Your task to perform on an android device: turn vacation reply on in the gmail app Image 0: 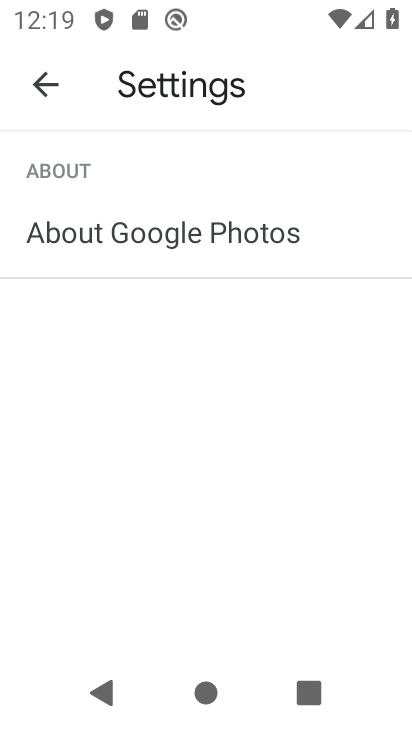
Step 0: press home button
Your task to perform on an android device: turn vacation reply on in the gmail app Image 1: 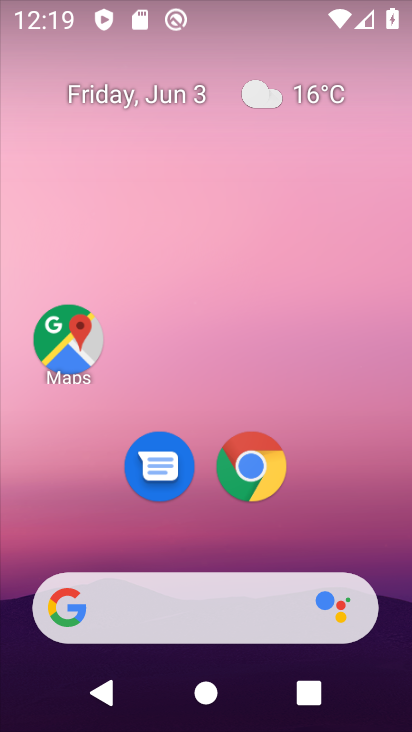
Step 1: drag from (88, 576) to (231, 153)
Your task to perform on an android device: turn vacation reply on in the gmail app Image 2: 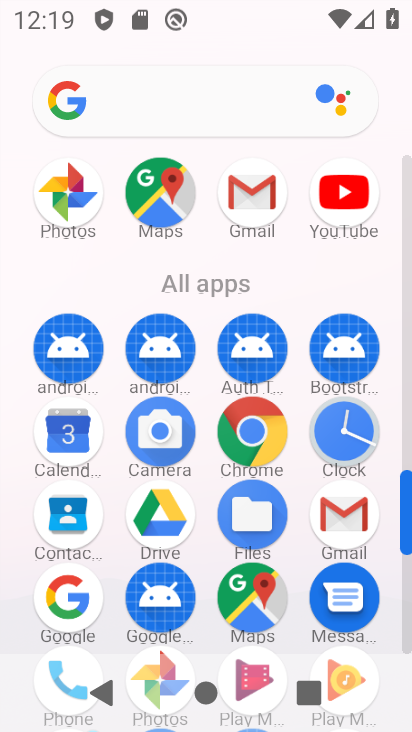
Step 2: click (349, 527)
Your task to perform on an android device: turn vacation reply on in the gmail app Image 3: 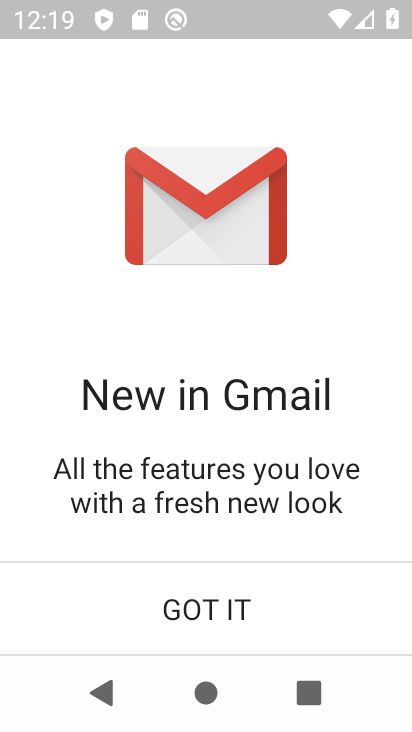
Step 3: click (183, 645)
Your task to perform on an android device: turn vacation reply on in the gmail app Image 4: 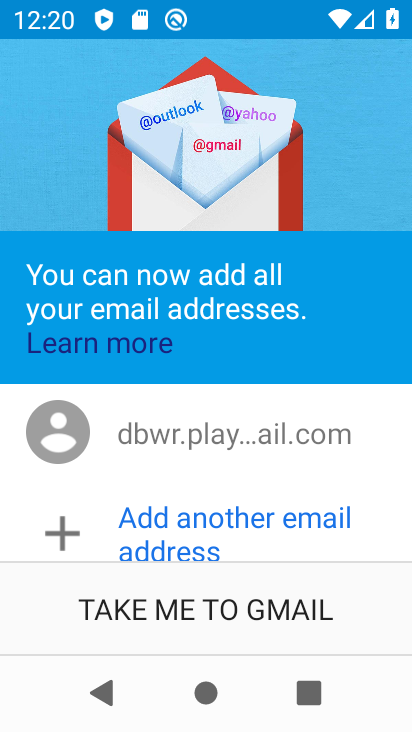
Step 4: click (208, 613)
Your task to perform on an android device: turn vacation reply on in the gmail app Image 5: 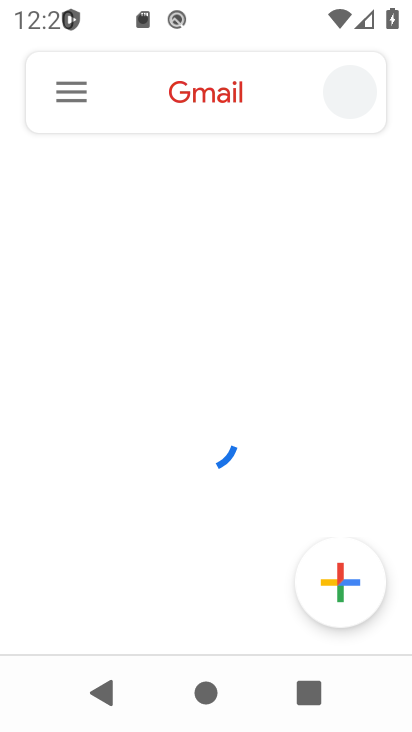
Step 5: click (57, 76)
Your task to perform on an android device: turn vacation reply on in the gmail app Image 6: 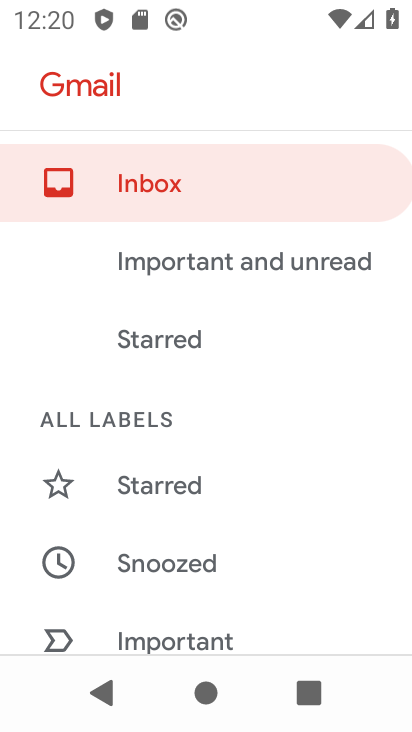
Step 6: drag from (119, 597) to (276, 74)
Your task to perform on an android device: turn vacation reply on in the gmail app Image 7: 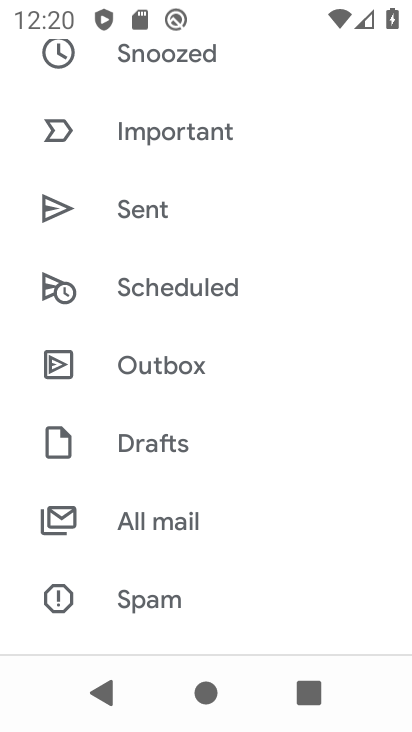
Step 7: drag from (219, 356) to (271, 154)
Your task to perform on an android device: turn vacation reply on in the gmail app Image 8: 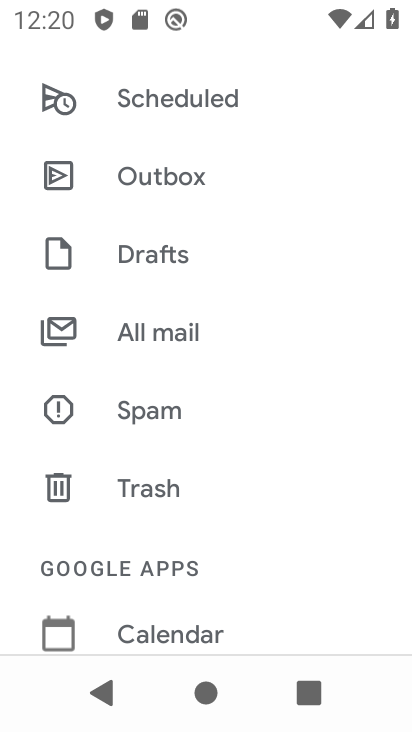
Step 8: drag from (173, 595) to (292, 134)
Your task to perform on an android device: turn vacation reply on in the gmail app Image 9: 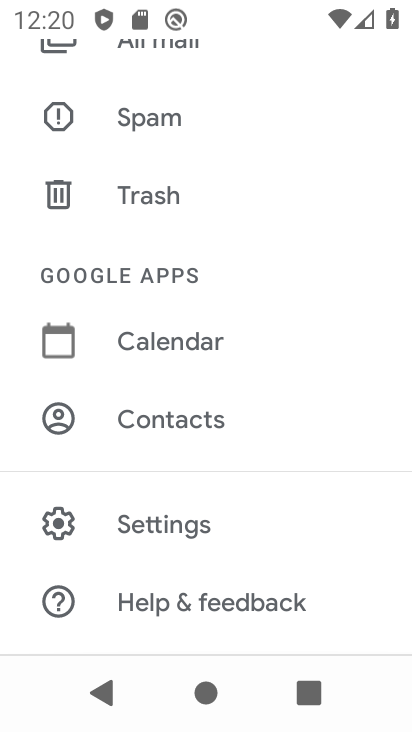
Step 9: click (174, 502)
Your task to perform on an android device: turn vacation reply on in the gmail app Image 10: 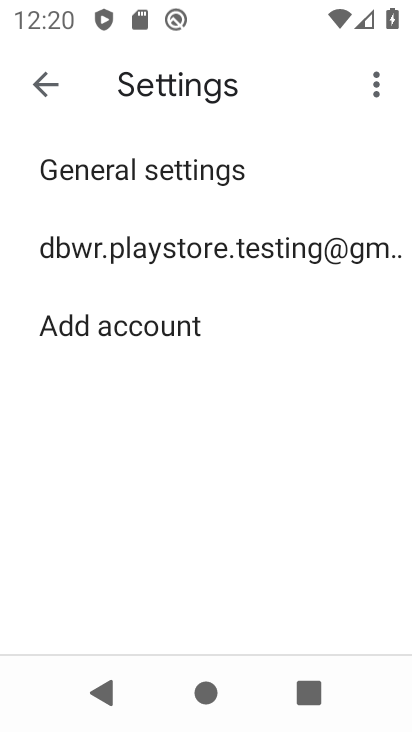
Step 10: click (276, 260)
Your task to perform on an android device: turn vacation reply on in the gmail app Image 11: 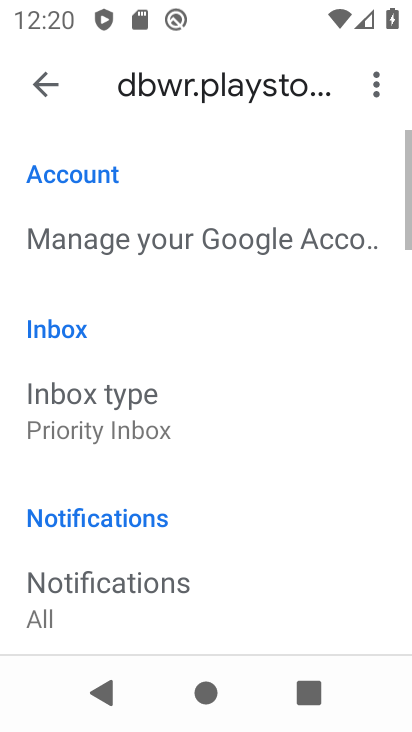
Step 11: drag from (226, 569) to (339, 69)
Your task to perform on an android device: turn vacation reply on in the gmail app Image 12: 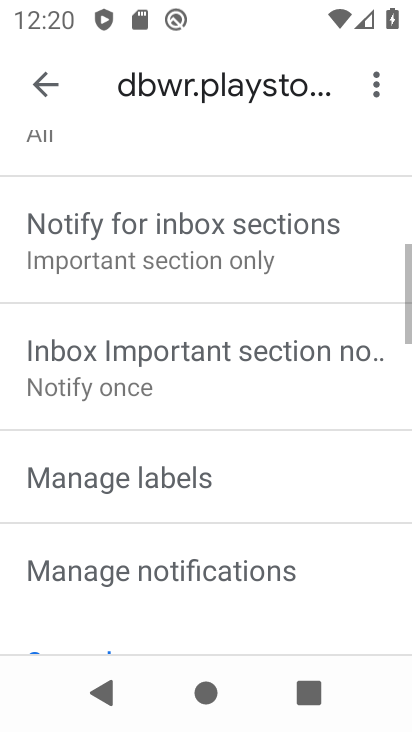
Step 12: drag from (244, 315) to (325, 102)
Your task to perform on an android device: turn vacation reply on in the gmail app Image 13: 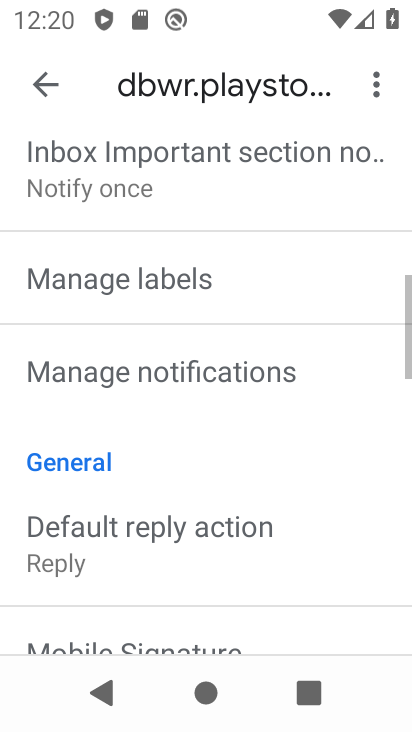
Step 13: drag from (217, 559) to (279, 277)
Your task to perform on an android device: turn vacation reply on in the gmail app Image 14: 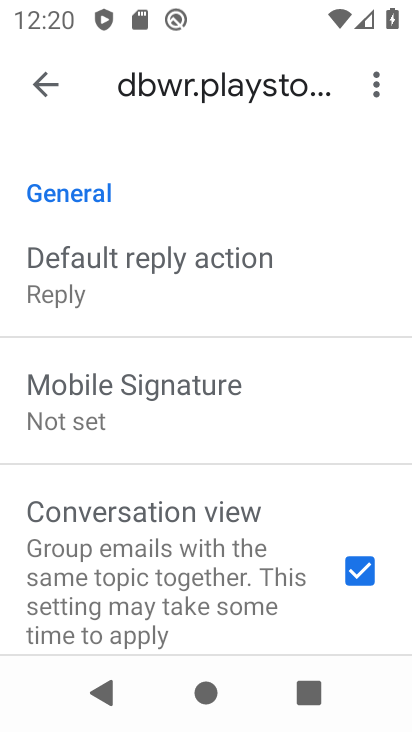
Step 14: drag from (108, 551) to (335, 224)
Your task to perform on an android device: turn vacation reply on in the gmail app Image 15: 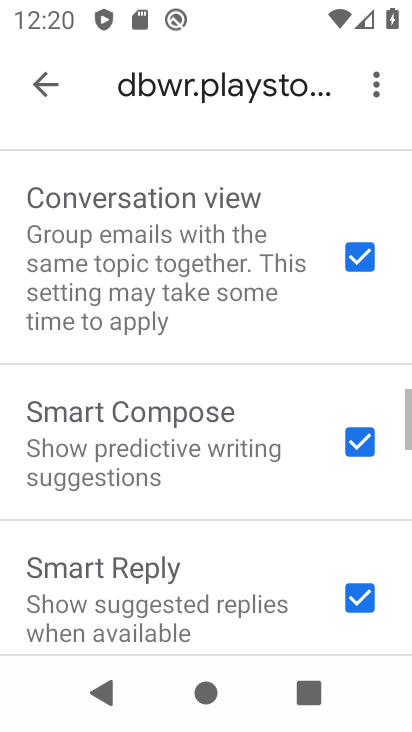
Step 15: drag from (118, 628) to (265, 140)
Your task to perform on an android device: turn vacation reply on in the gmail app Image 16: 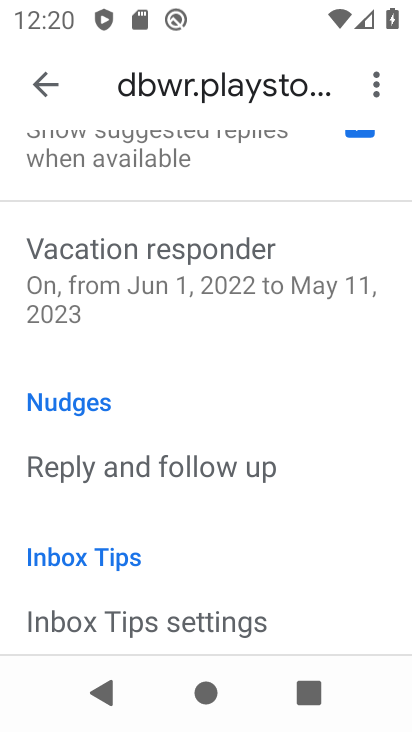
Step 16: click (217, 282)
Your task to perform on an android device: turn vacation reply on in the gmail app Image 17: 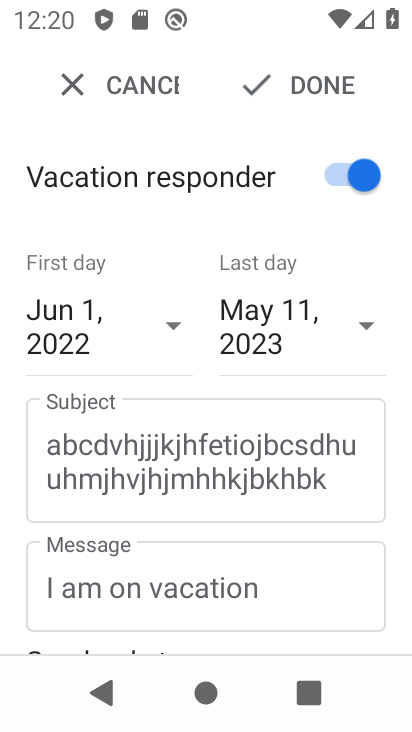
Step 17: task complete